Your task to perform on an android device: Open Google Image 0: 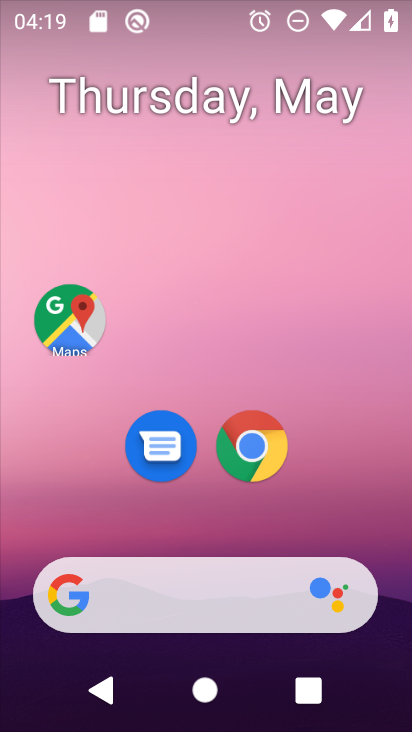
Step 0: drag from (345, 548) to (280, 28)
Your task to perform on an android device: Open Google Image 1: 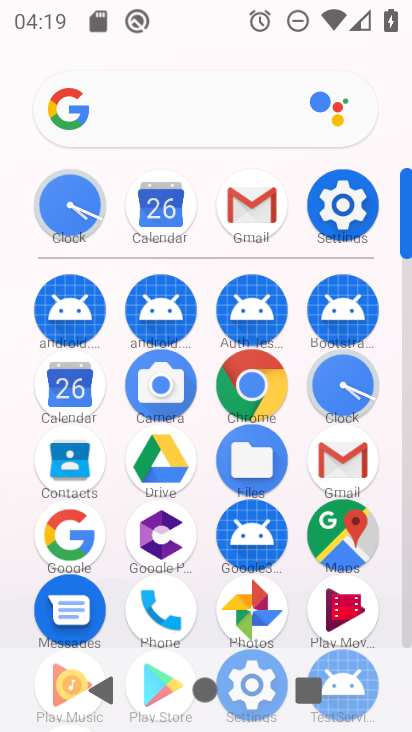
Step 1: click (61, 535)
Your task to perform on an android device: Open Google Image 2: 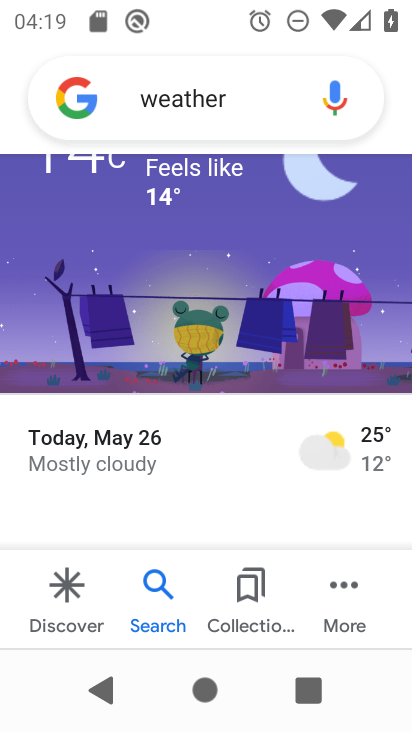
Step 2: task complete